Your task to perform on an android device: Open wifi settings Image 0: 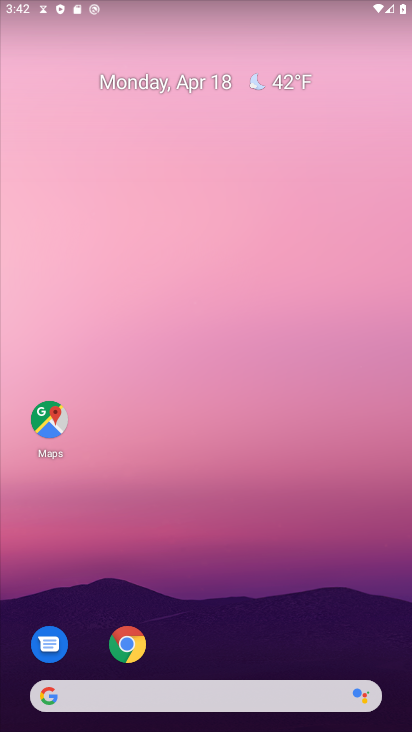
Step 0: drag from (233, 568) to (227, 79)
Your task to perform on an android device: Open wifi settings Image 1: 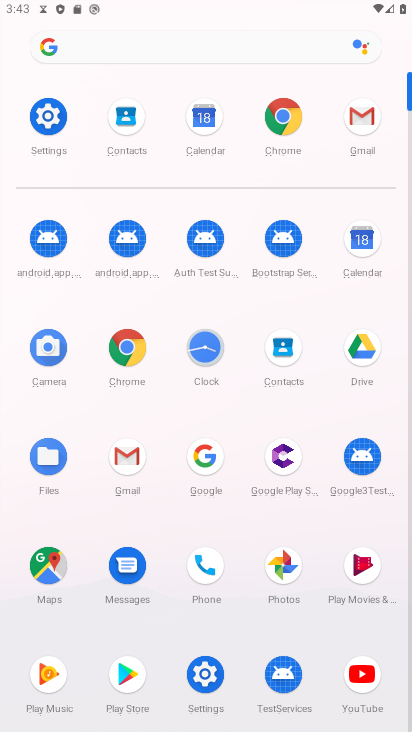
Step 1: click (54, 118)
Your task to perform on an android device: Open wifi settings Image 2: 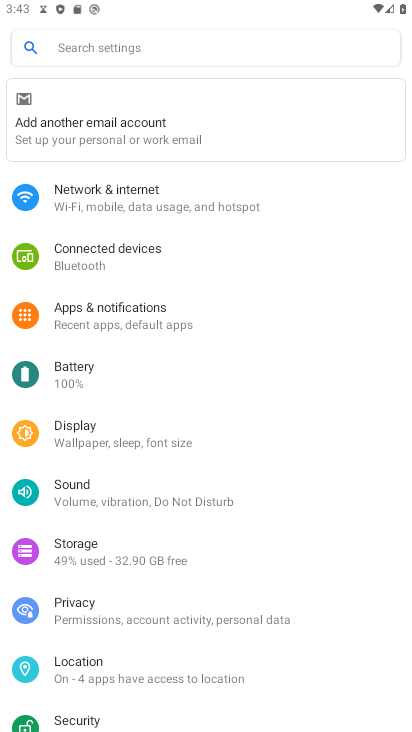
Step 2: click (115, 197)
Your task to perform on an android device: Open wifi settings Image 3: 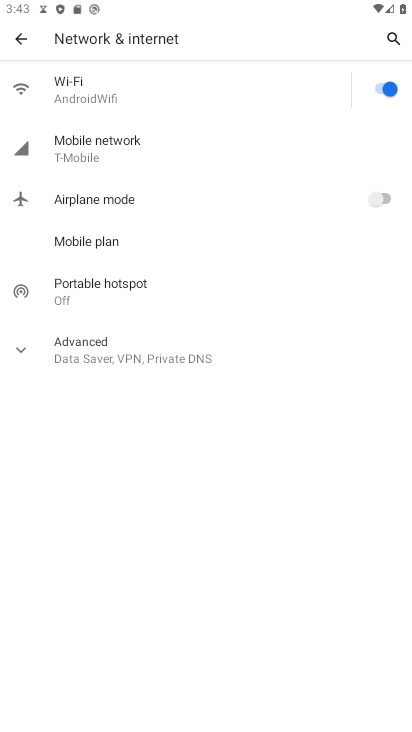
Step 3: click (80, 87)
Your task to perform on an android device: Open wifi settings Image 4: 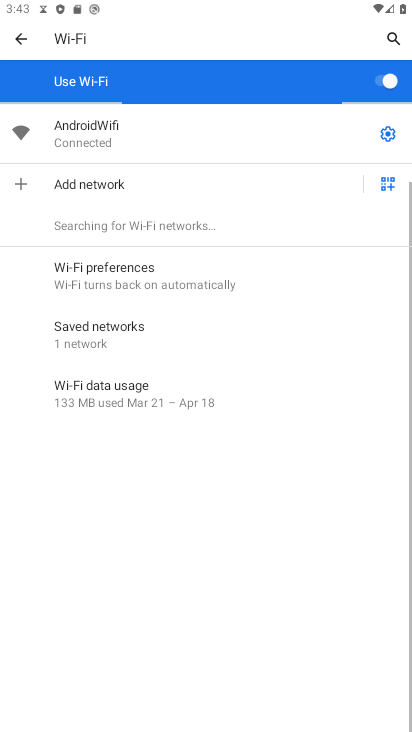
Step 4: task complete